Your task to perform on an android device: add a label to a message in the gmail app Image 0: 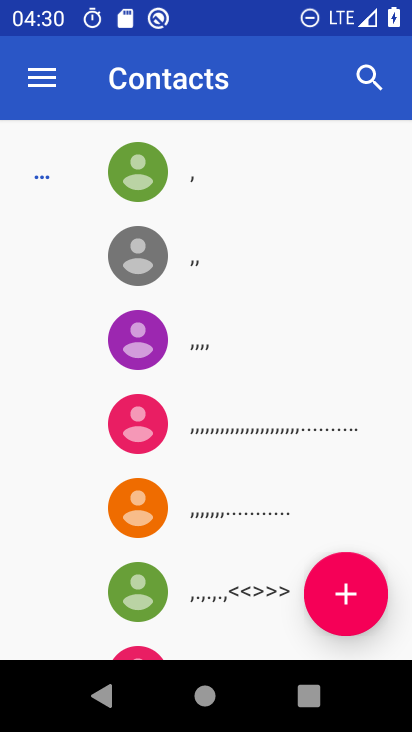
Step 0: press home button
Your task to perform on an android device: add a label to a message in the gmail app Image 1: 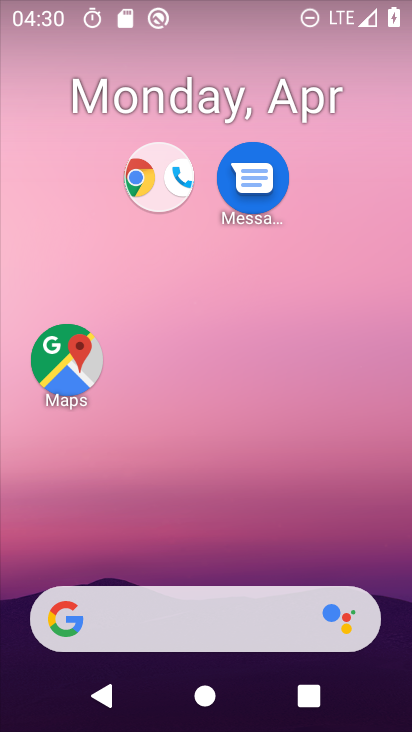
Step 1: drag from (274, 578) to (316, 3)
Your task to perform on an android device: add a label to a message in the gmail app Image 2: 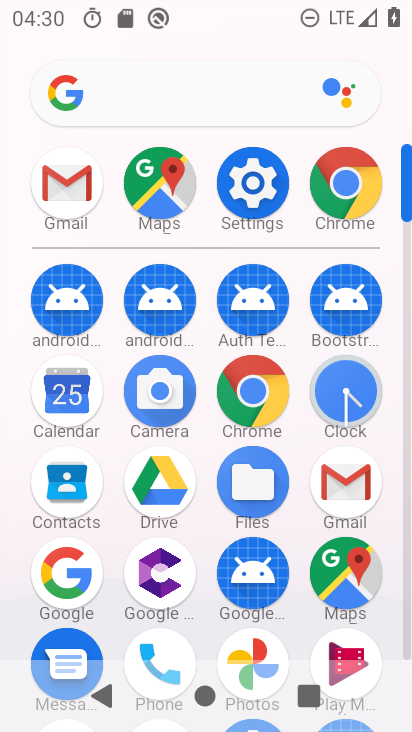
Step 2: click (348, 479)
Your task to perform on an android device: add a label to a message in the gmail app Image 3: 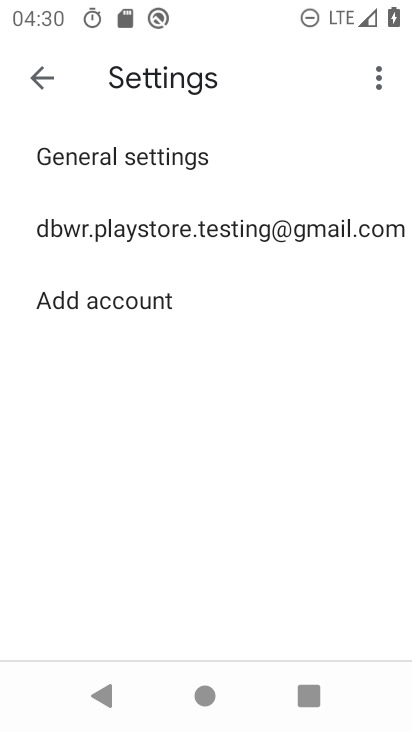
Step 3: press back button
Your task to perform on an android device: add a label to a message in the gmail app Image 4: 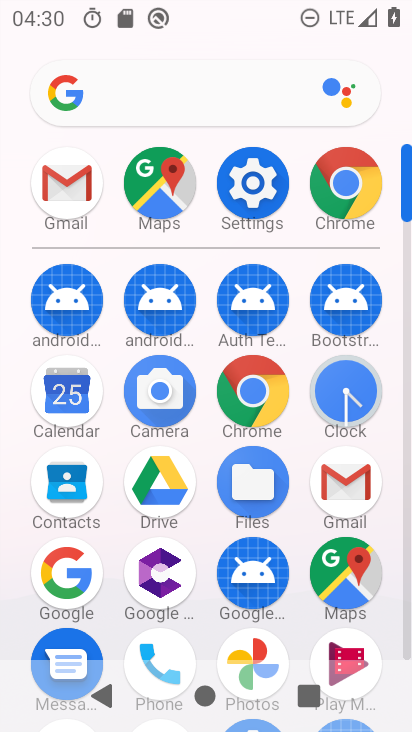
Step 4: click (322, 484)
Your task to perform on an android device: add a label to a message in the gmail app Image 5: 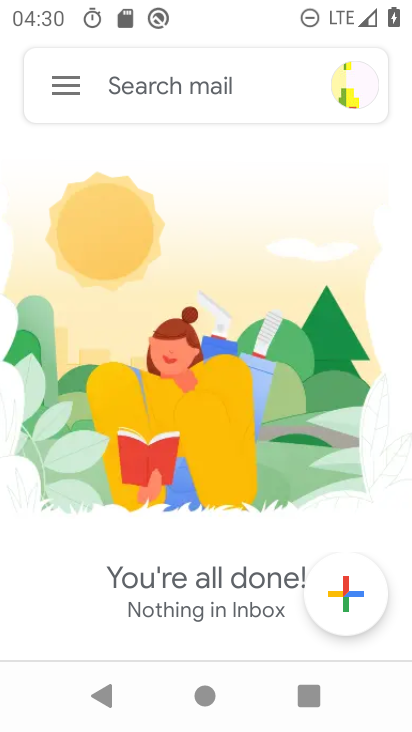
Step 5: task complete